Your task to perform on an android device: Go to Maps Image 0: 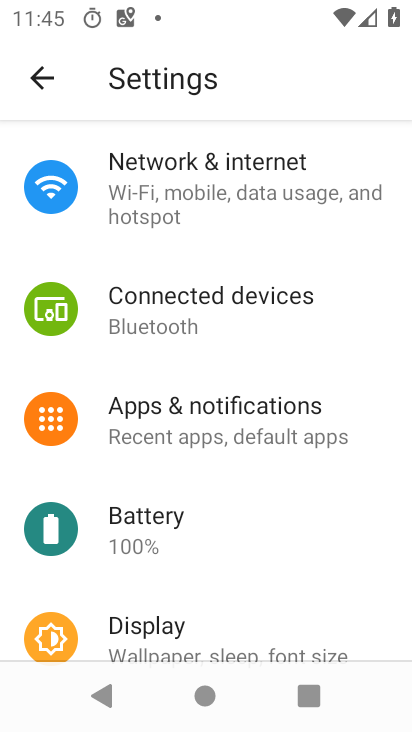
Step 0: press home button
Your task to perform on an android device: Go to Maps Image 1: 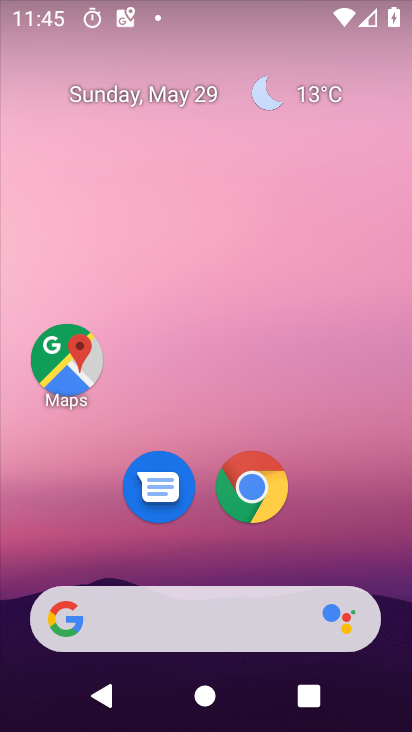
Step 1: click (53, 352)
Your task to perform on an android device: Go to Maps Image 2: 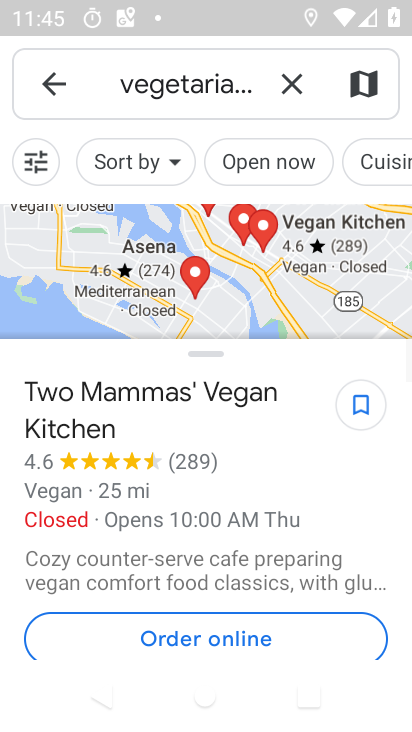
Step 2: click (52, 78)
Your task to perform on an android device: Go to Maps Image 3: 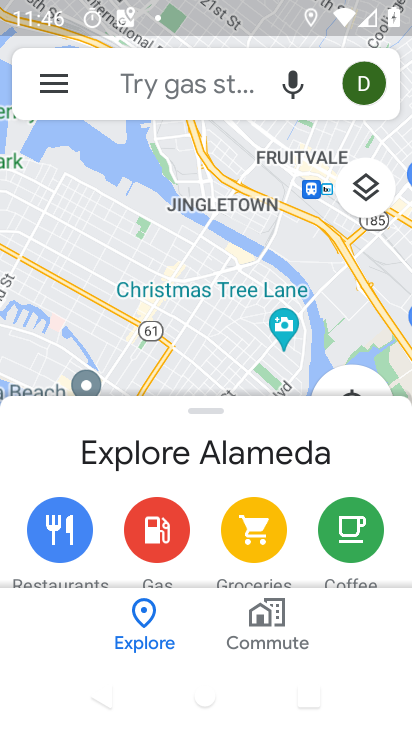
Step 3: task complete